Your task to perform on an android device: Open Yahoo.com Image 0: 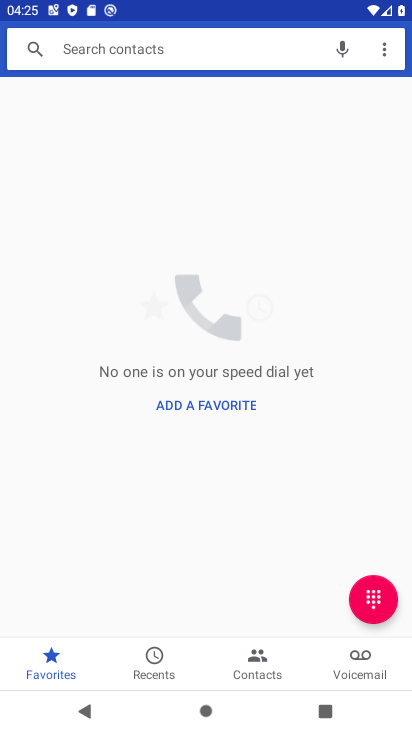
Step 0: press home button
Your task to perform on an android device: Open Yahoo.com Image 1: 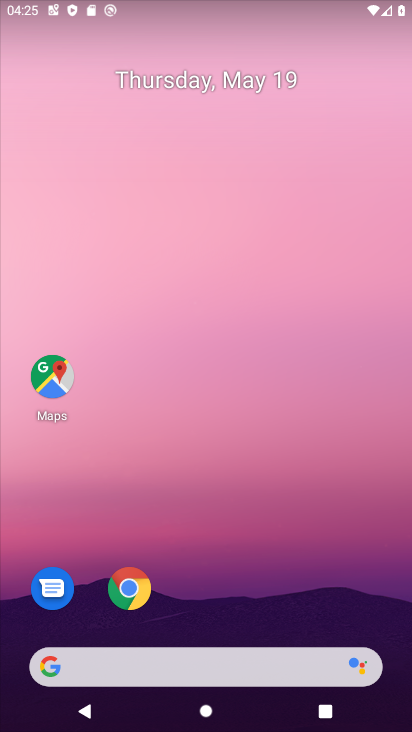
Step 1: click (140, 600)
Your task to perform on an android device: Open Yahoo.com Image 2: 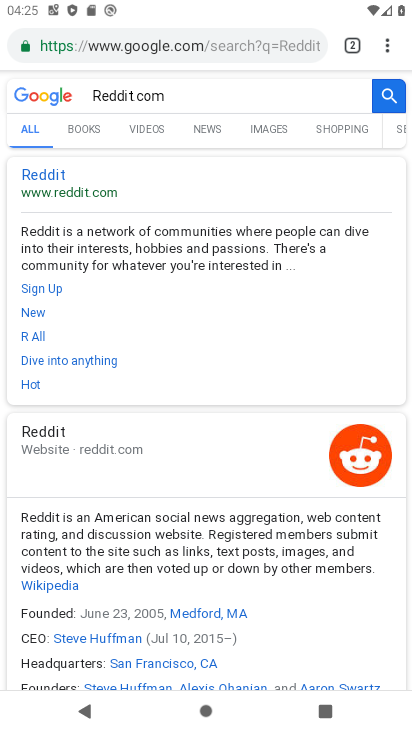
Step 2: click (223, 34)
Your task to perform on an android device: Open Yahoo.com Image 3: 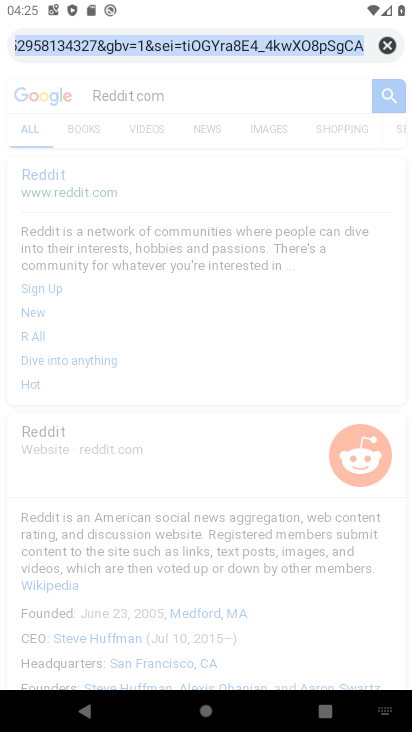
Step 3: type "Yahoo.com"
Your task to perform on an android device: Open Yahoo.com Image 4: 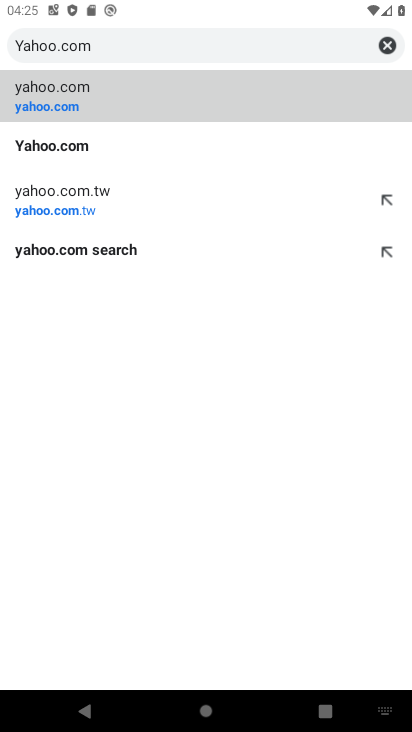
Step 4: click (67, 105)
Your task to perform on an android device: Open Yahoo.com Image 5: 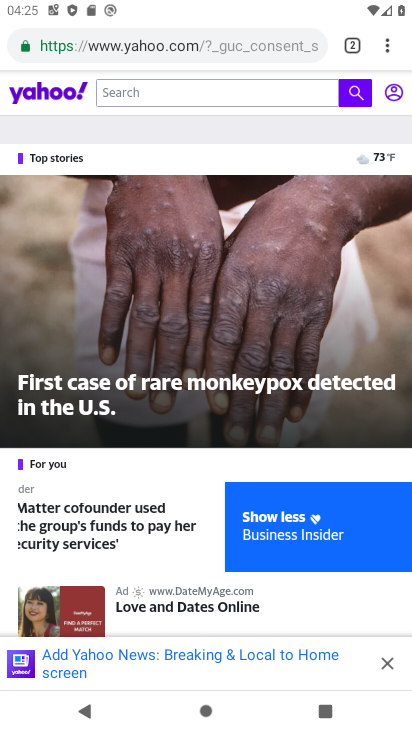
Step 5: task complete